Your task to perform on an android device: Open display settings Image 0: 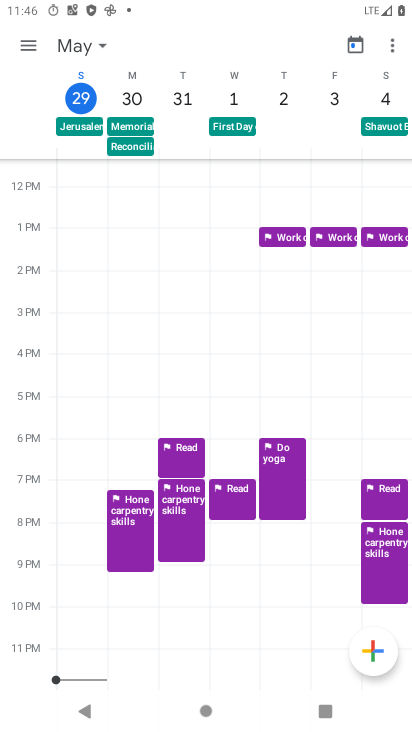
Step 0: press home button
Your task to perform on an android device: Open display settings Image 1: 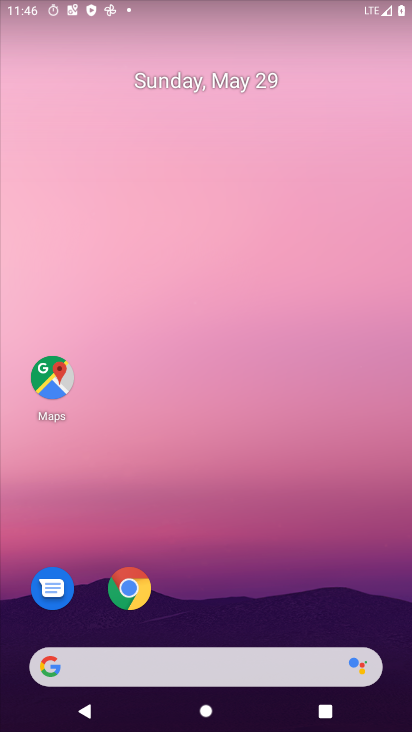
Step 1: drag from (263, 603) to (247, 238)
Your task to perform on an android device: Open display settings Image 2: 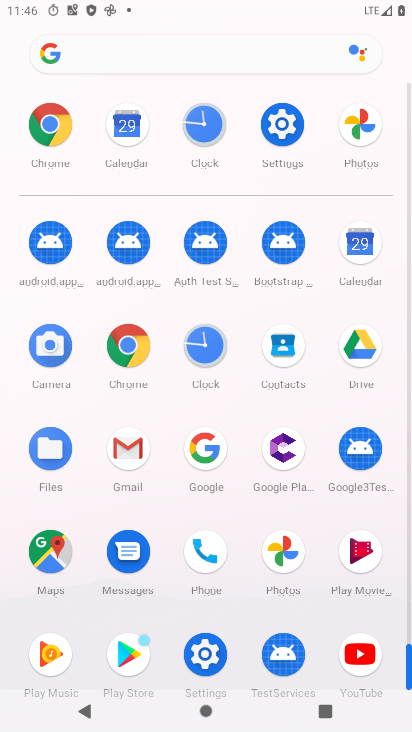
Step 2: click (214, 660)
Your task to perform on an android device: Open display settings Image 3: 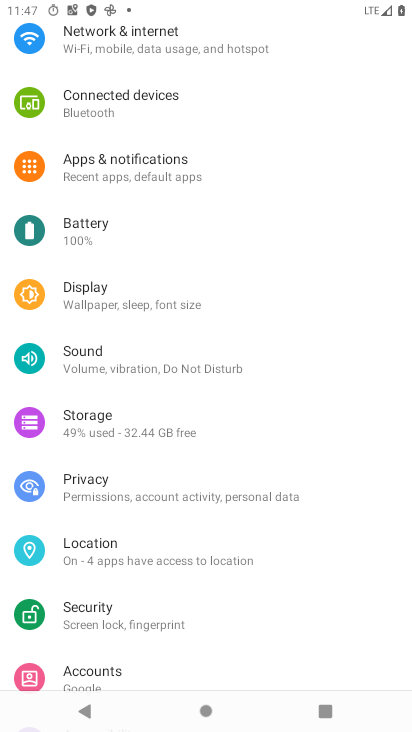
Step 3: click (148, 306)
Your task to perform on an android device: Open display settings Image 4: 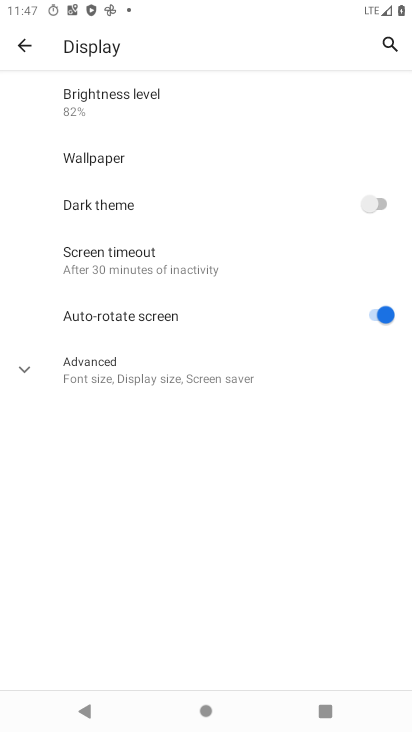
Step 4: task complete